Your task to perform on an android device: Search for corsair k70 on amazon.com, select the first entry, add it to the cart, then select checkout. Image 0: 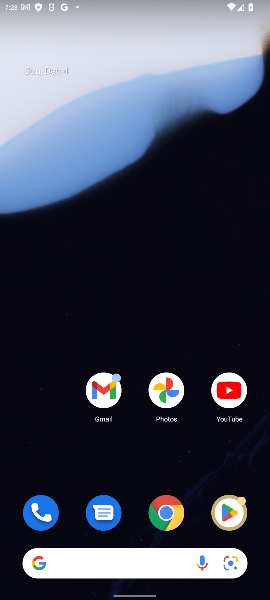
Step 0: click (164, 510)
Your task to perform on an android device: Search for corsair k70 on amazon.com, select the first entry, add it to the cart, then select checkout. Image 1: 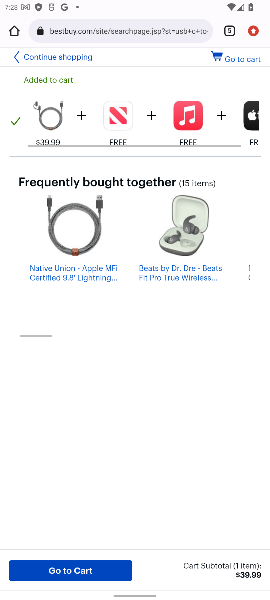
Step 1: click (233, 27)
Your task to perform on an android device: Search for corsair k70 on amazon.com, select the first entry, add it to the cart, then select checkout. Image 2: 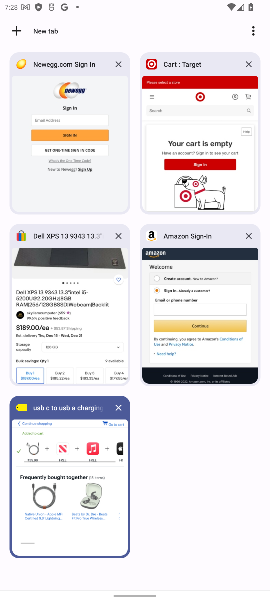
Step 2: click (174, 240)
Your task to perform on an android device: Search for corsair k70 on amazon.com, select the first entry, add it to the cart, then select checkout. Image 3: 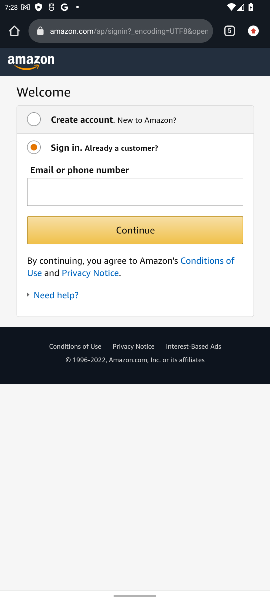
Step 3: press back button
Your task to perform on an android device: Search for corsair k70 on amazon.com, select the first entry, add it to the cart, then select checkout. Image 4: 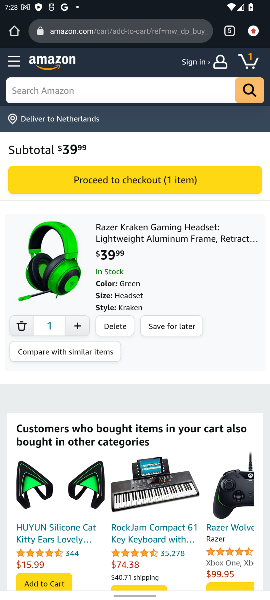
Step 4: click (81, 87)
Your task to perform on an android device: Search for corsair k70 on amazon.com, select the first entry, add it to the cart, then select checkout. Image 5: 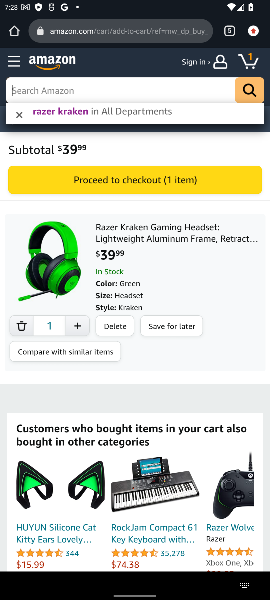
Step 5: type "corsair k70"
Your task to perform on an android device: Search for corsair k70 on amazon.com, select the first entry, add it to the cart, then select checkout. Image 6: 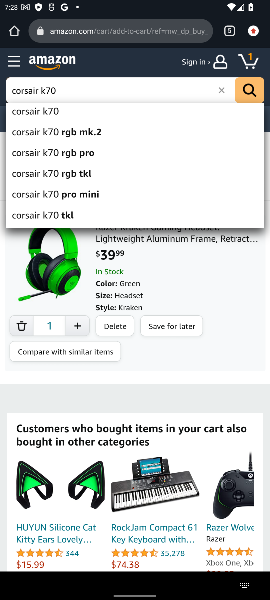
Step 6: click (248, 91)
Your task to perform on an android device: Search for corsair k70 on amazon.com, select the first entry, add it to the cart, then select checkout. Image 7: 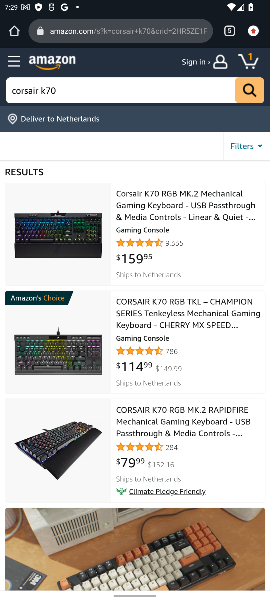
Step 7: click (188, 203)
Your task to perform on an android device: Search for corsair k70 on amazon.com, select the first entry, add it to the cart, then select checkout. Image 8: 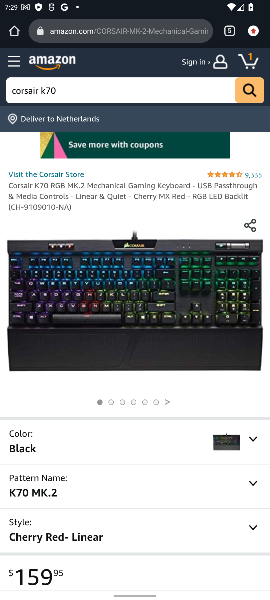
Step 8: drag from (129, 486) to (162, 247)
Your task to perform on an android device: Search for corsair k70 on amazon.com, select the first entry, add it to the cart, then select checkout. Image 9: 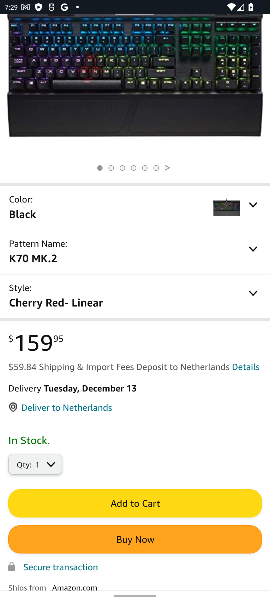
Step 9: click (151, 504)
Your task to perform on an android device: Search for corsair k70 on amazon.com, select the first entry, add it to the cart, then select checkout. Image 10: 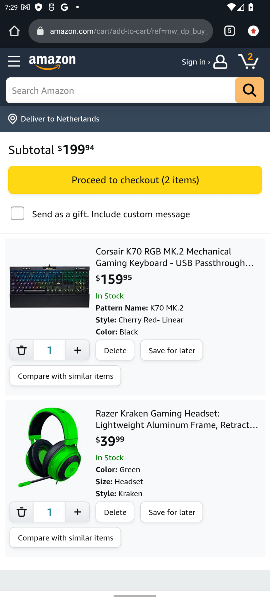
Step 10: click (150, 180)
Your task to perform on an android device: Search for corsair k70 on amazon.com, select the first entry, add it to the cart, then select checkout. Image 11: 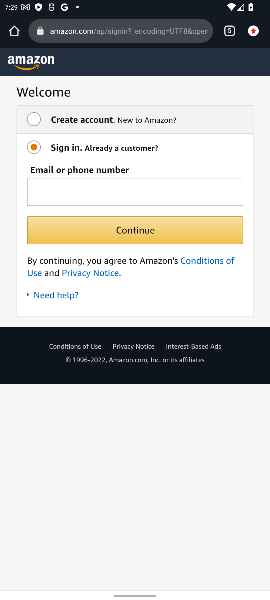
Step 11: task complete